Your task to perform on an android device: Open calendar and show me the third week of next month Image 0: 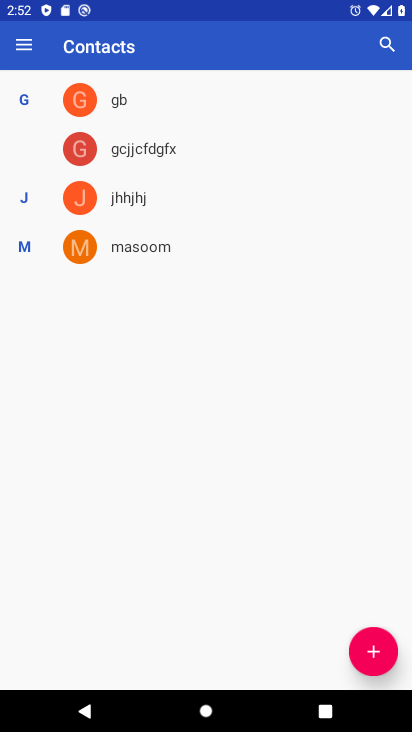
Step 0: press home button
Your task to perform on an android device: Open calendar and show me the third week of next month Image 1: 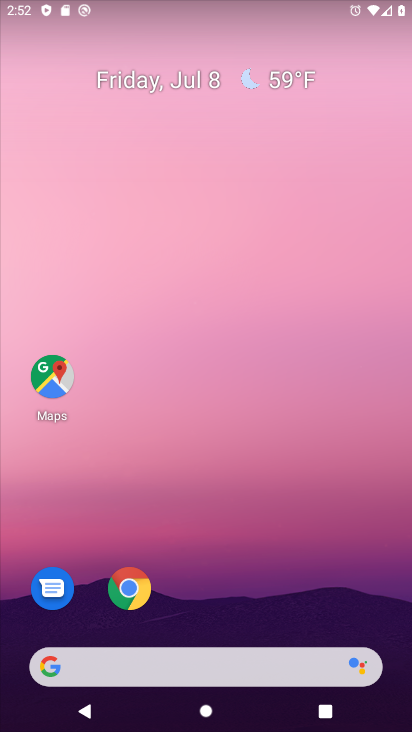
Step 1: drag from (235, 578) to (246, 159)
Your task to perform on an android device: Open calendar and show me the third week of next month Image 2: 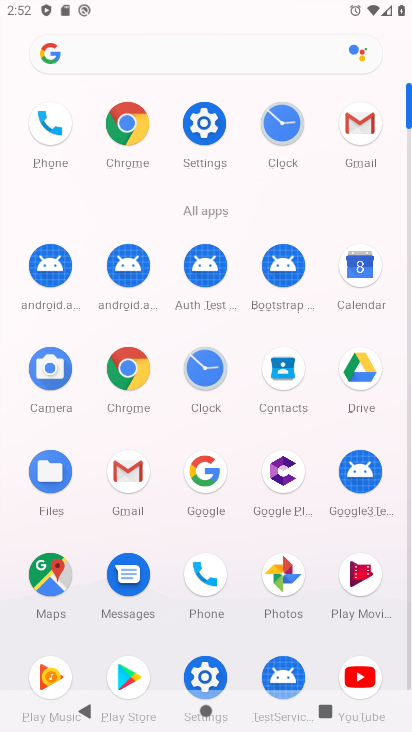
Step 2: click (357, 280)
Your task to perform on an android device: Open calendar and show me the third week of next month Image 3: 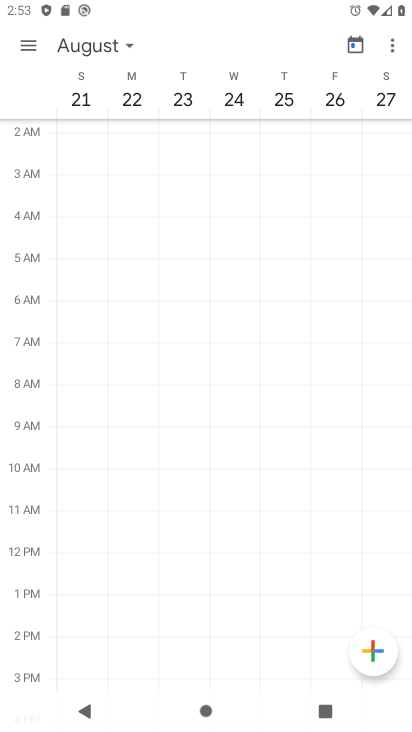
Step 3: task complete